Your task to perform on an android device: open app "Lyft - Rideshare, Bikes, Scooters & Transit" (install if not already installed) and go to login screen Image 0: 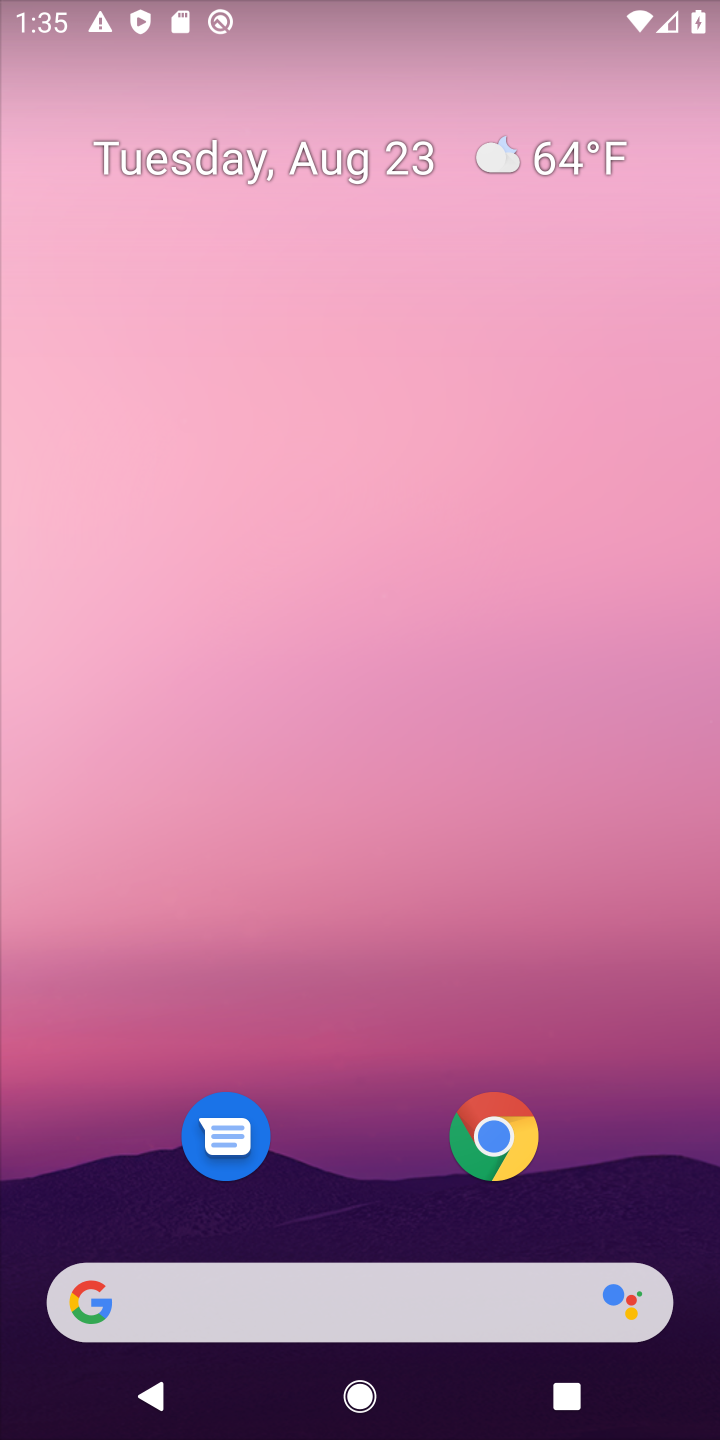
Step 0: drag from (347, 922) to (367, 227)
Your task to perform on an android device: open app "Lyft - Rideshare, Bikes, Scooters & Transit" (install if not already installed) and go to login screen Image 1: 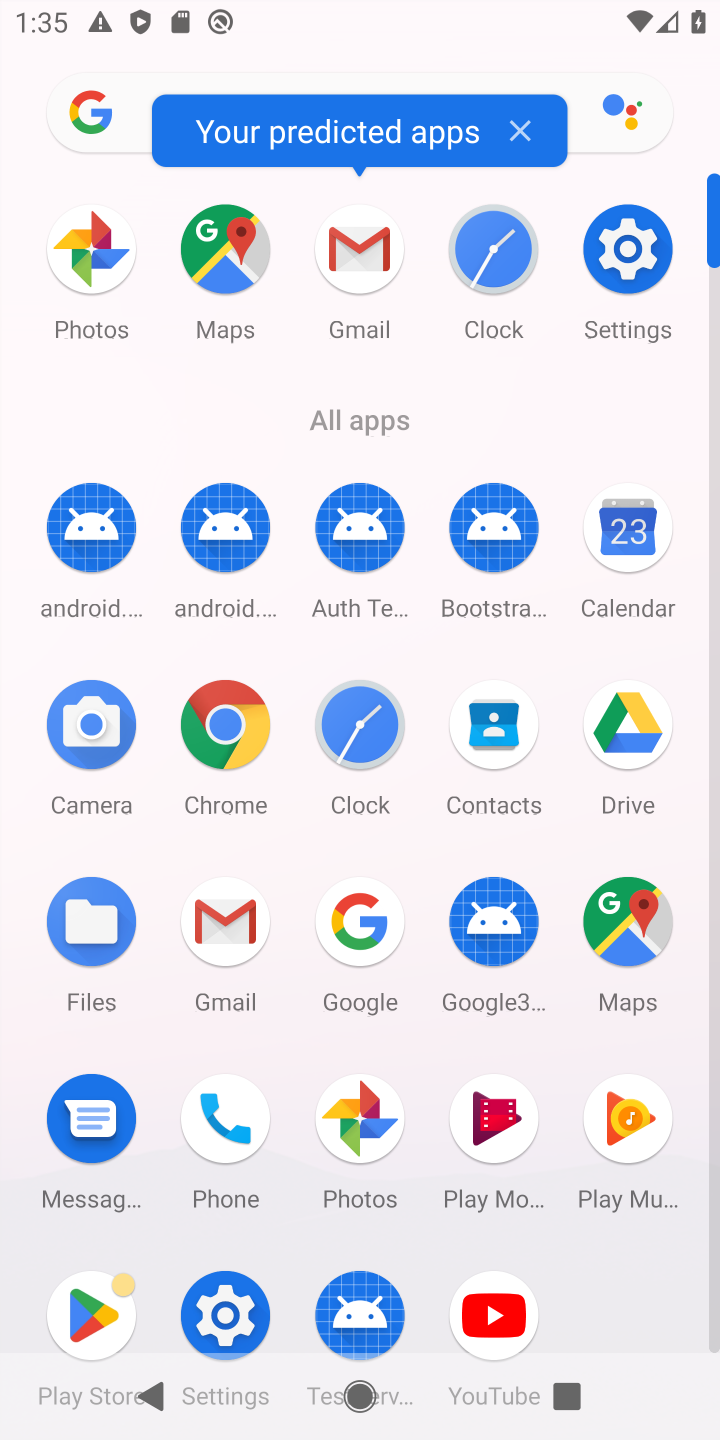
Step 1: click (80, 1305)
Your task to perform on an android device: open app "Lyft - Rideshare, Bikes, Scooters & Transit" (install if not already installed) and go to login screen Image 2: 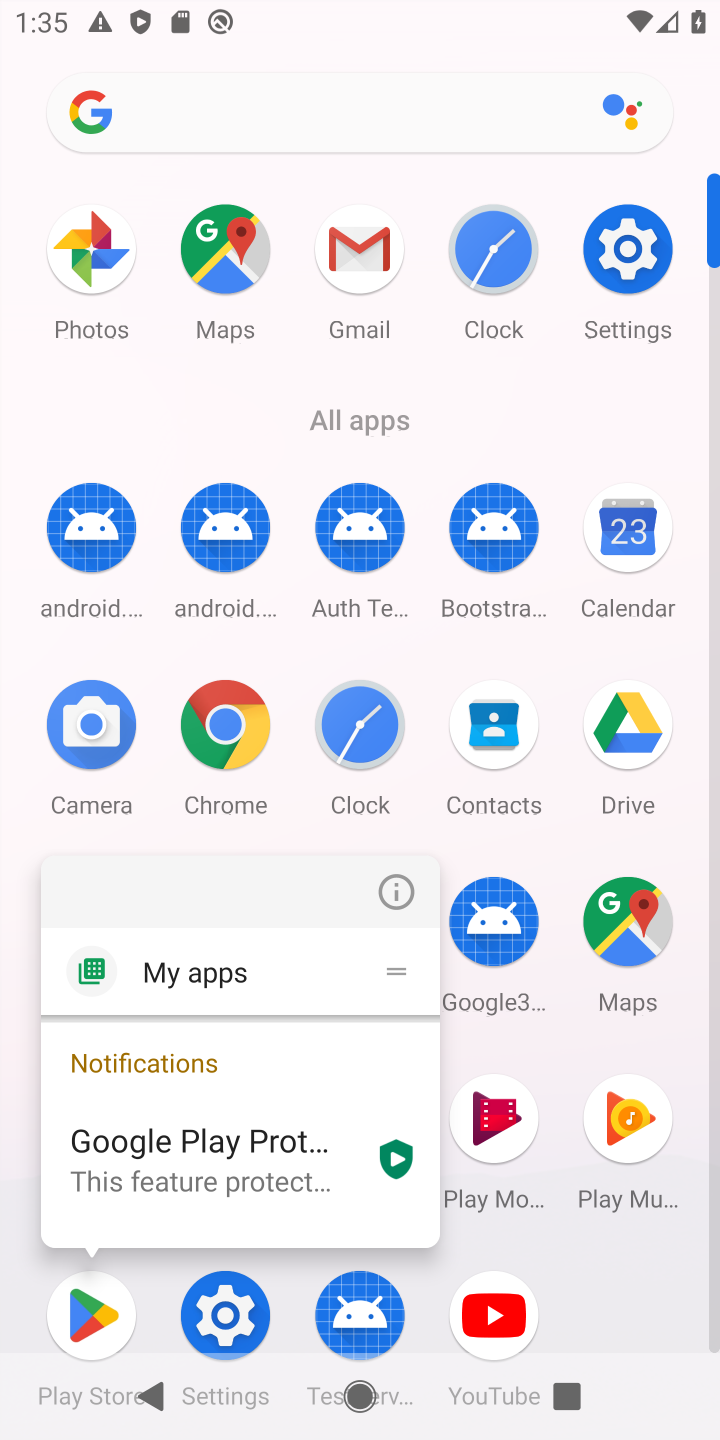
Step 2: click (80, 1305)
Your task to perform on an android device: open app "Lyft - Rideshare, Bikes, Scooters & Transit" (install if not already installed) and go to login screen Image 3: 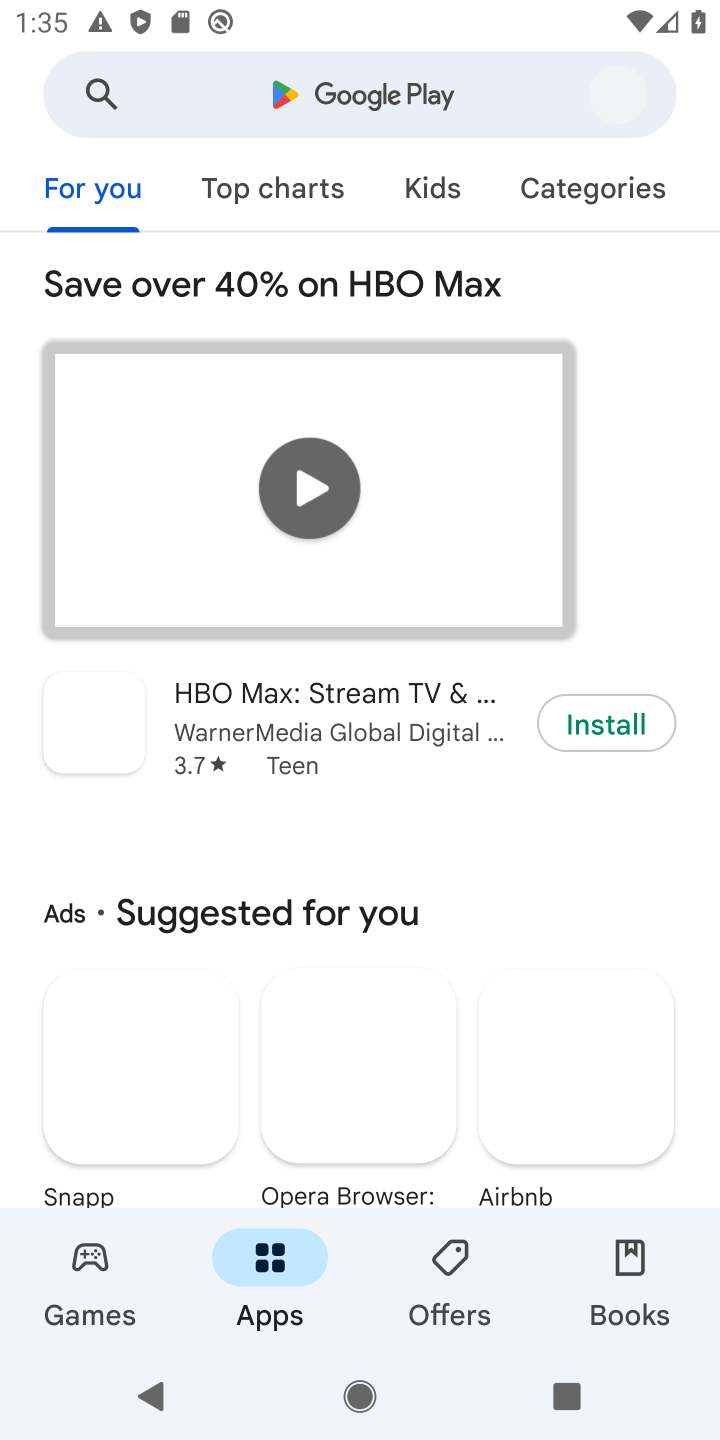
Step 3: click (102, 93)
Your task to perform on an android device: open app "Lyft - Rideshare, Bikes, Scooters & Transit" (install if not already installed) and go to login screen Image 4: 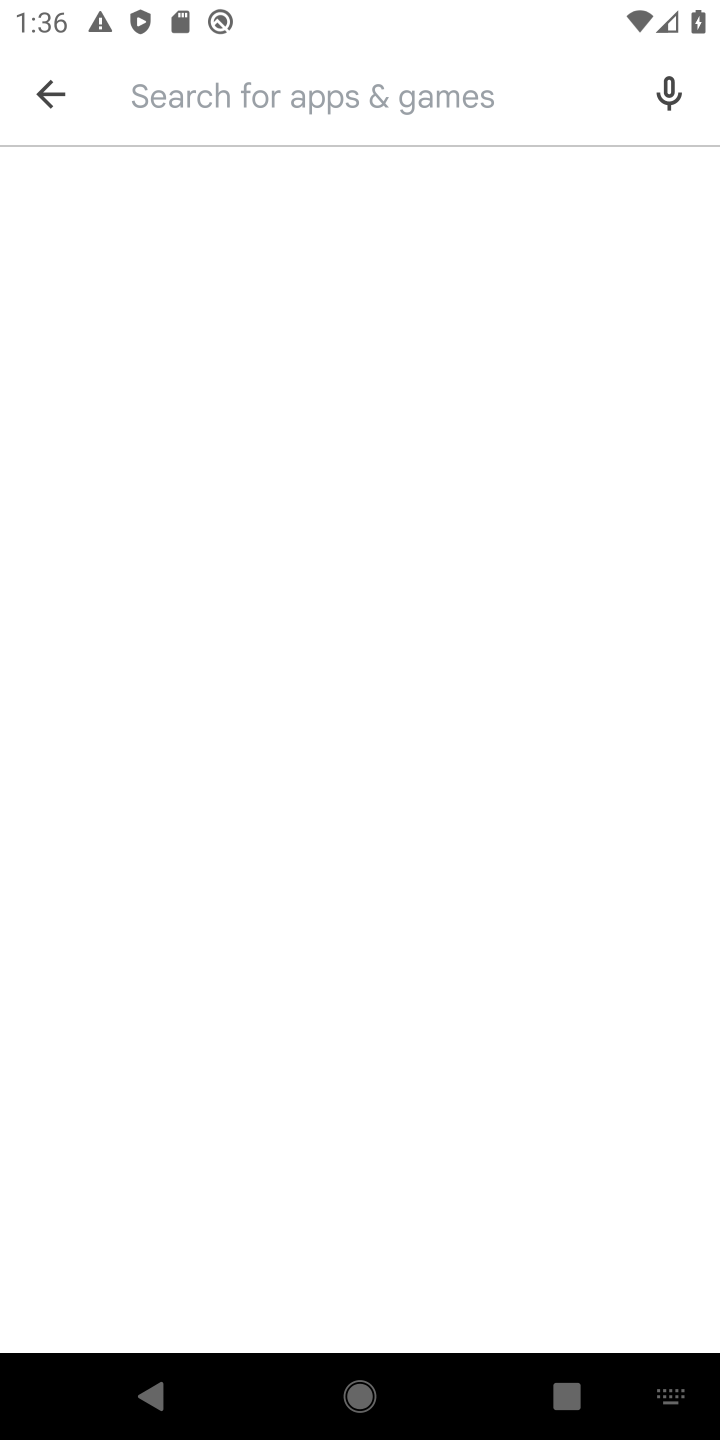
Step 4: type "Lyft"
Your task to perform on an android device: open app "Lyft - Rideshare, Bikes, Scooters & Transit" (install if not already installed) and go to login screen Image 5: 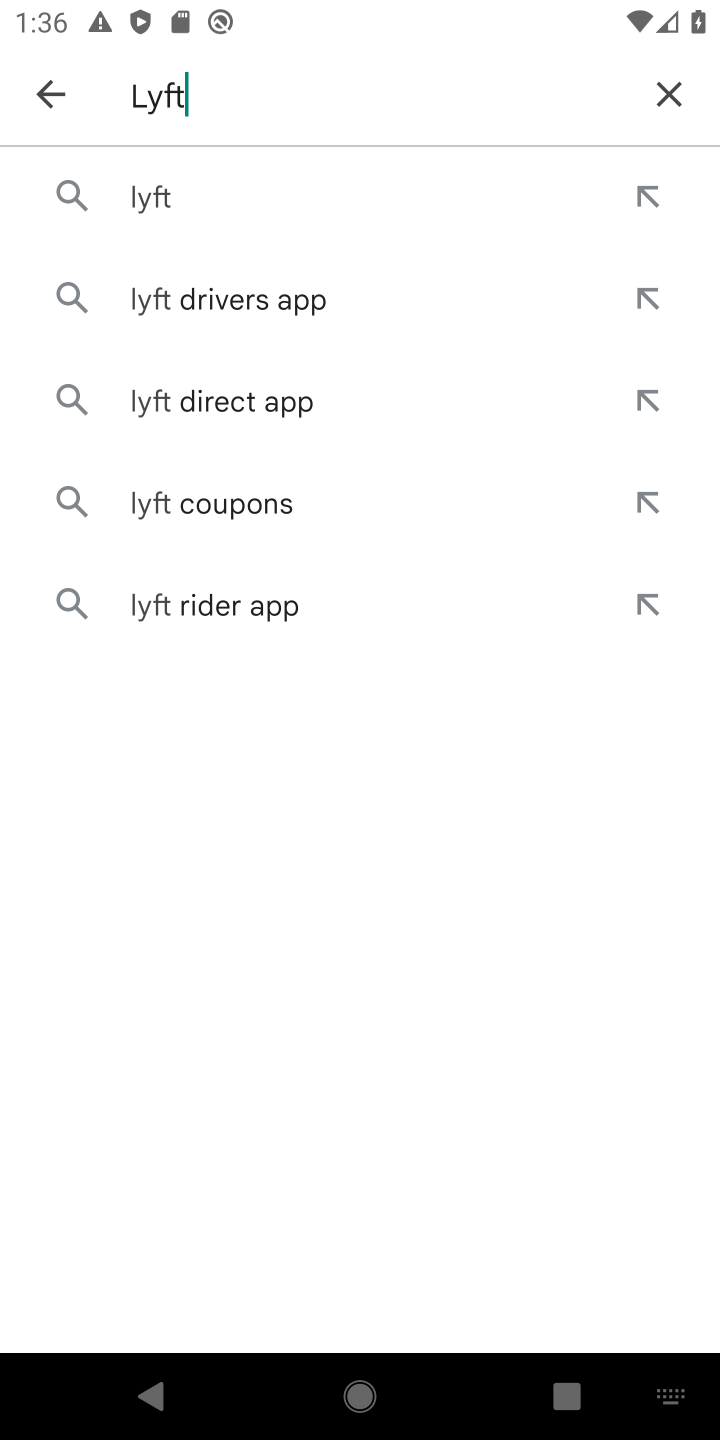
Step 5: click (143, 185)
Your task to perform on an android device: open app "Lyft - Rideshare, Bikes, Scooters & Transit" (install if not already installed) and go to login screen Image 6: 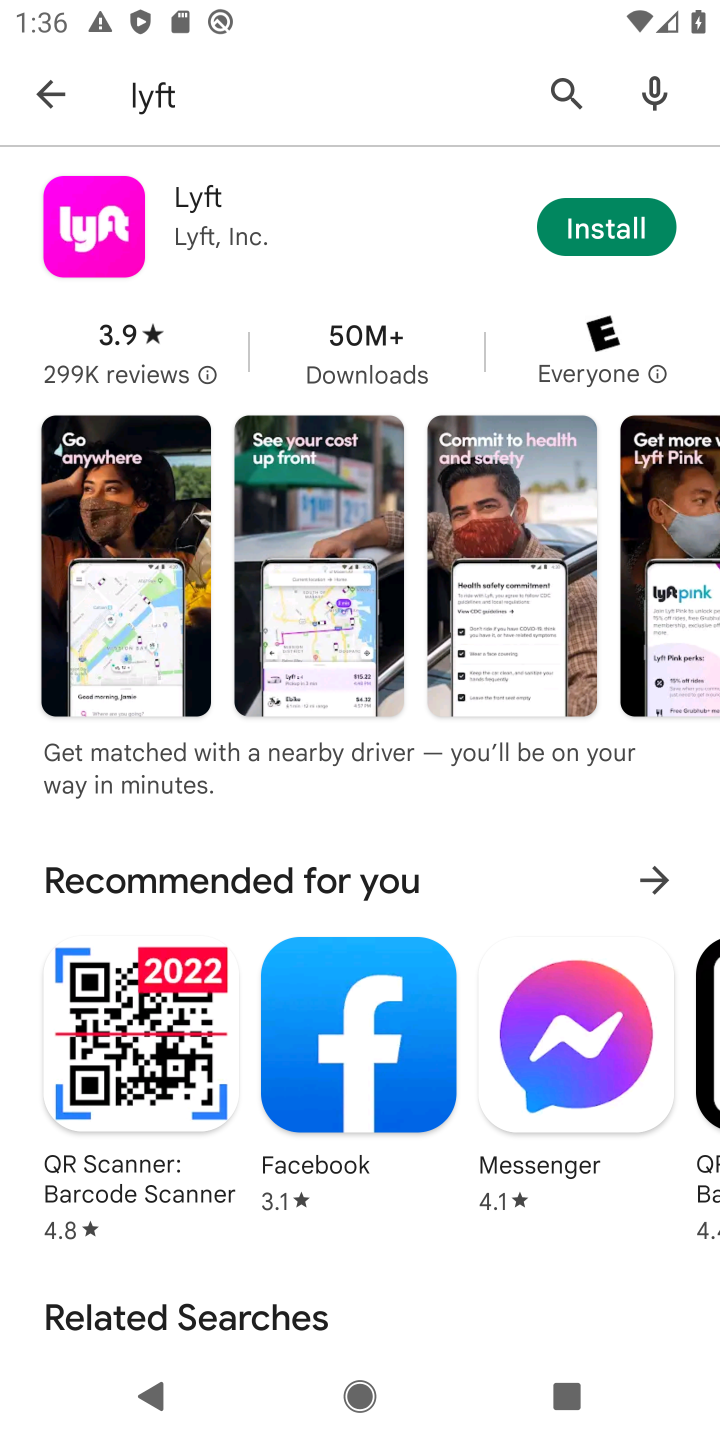
Step 6: click (565, 227)
Your task to perform on an android device: open app "Lyft - Rideshare, Bikes, Scooters & Transit" (install if not already installed) and go to login screen Image 7: 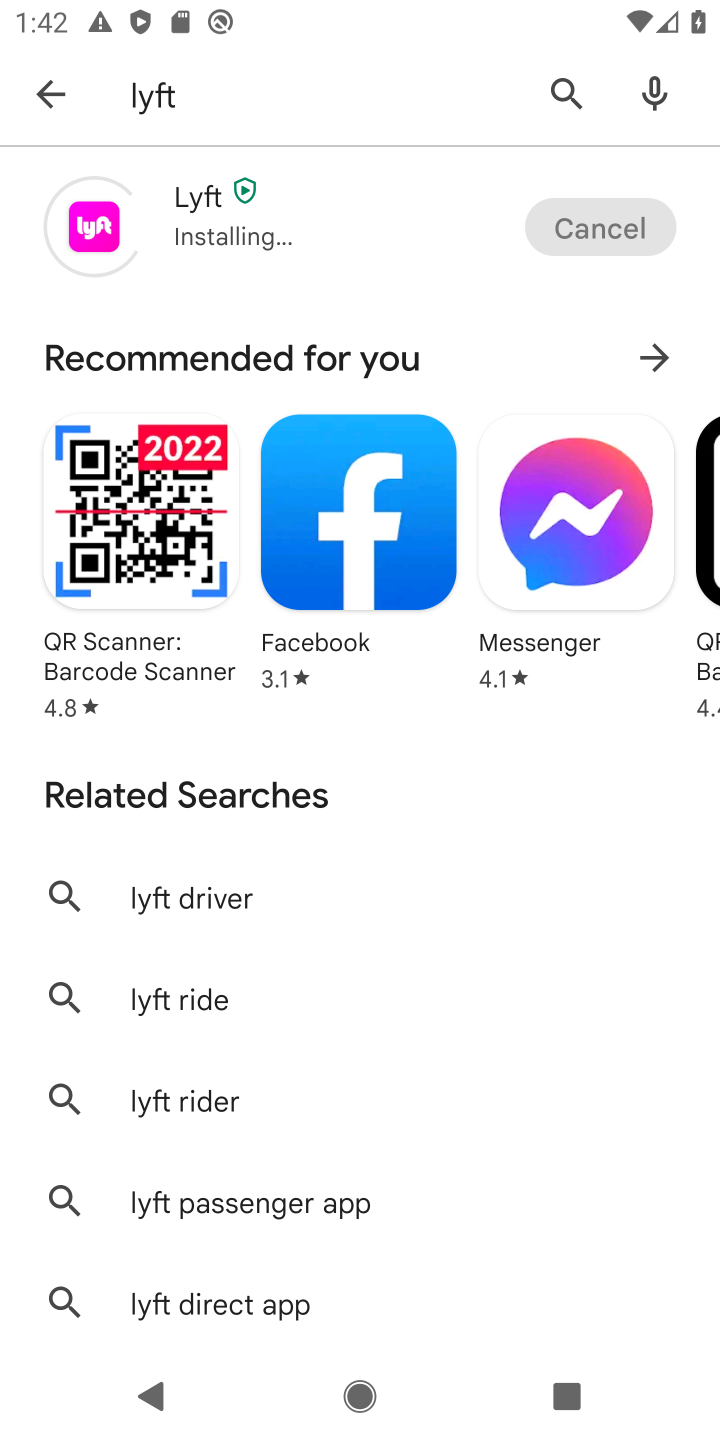
Step 7: task complete